Your task to perform on an android device: Open notification settings Image 0: 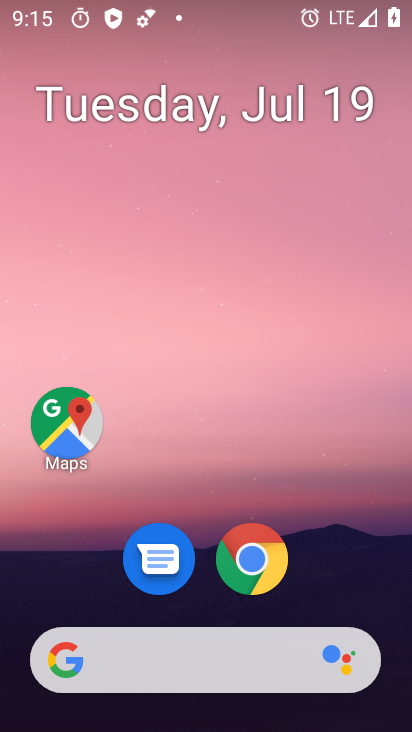
Step 0: drag from (382, 581) to (317, 202)
Your task to perform on an android device: Open notification settings Image 1: 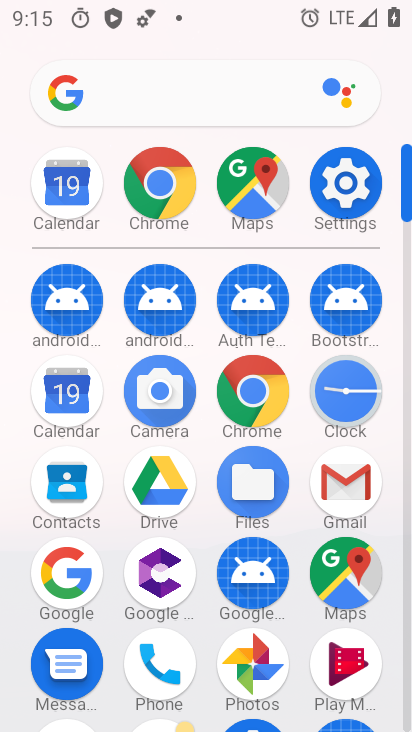
Step 1: click (351, 164)
Your task to perform on an android device: Open notification settings Image 2: 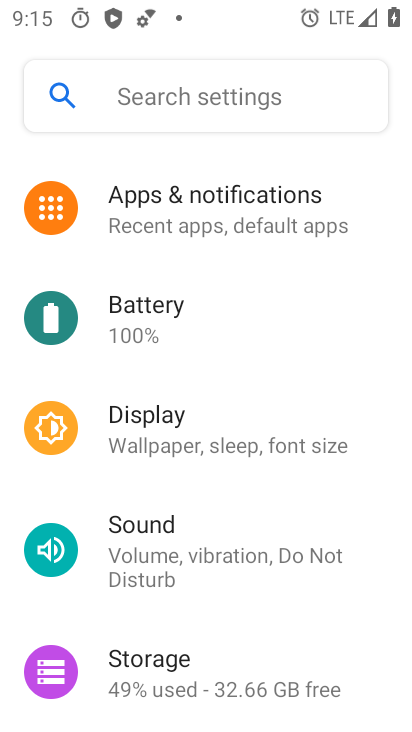
Step 2: click (305, 203)
Your task to perform on an android device: Open notification settings Image 3: 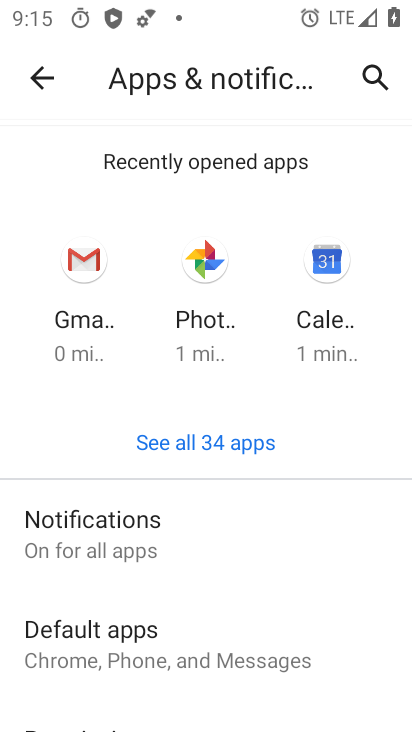
Step 3: click (163, 536)
Your task to perform on an android device: Open notification settings Image 4: 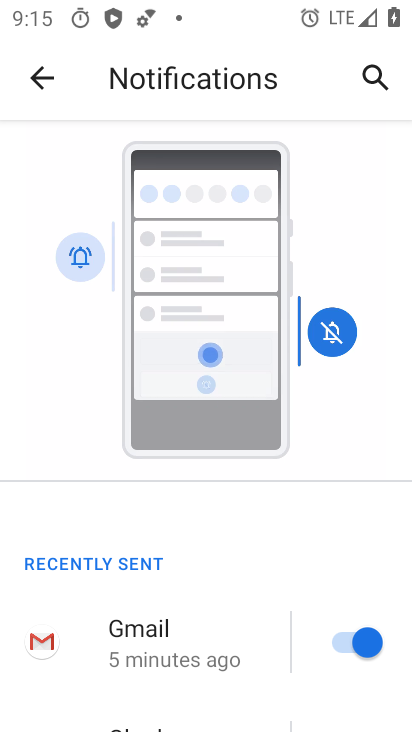
Step 4: task complete